Your task to perform on an android device: change keyboard looks Image 0: 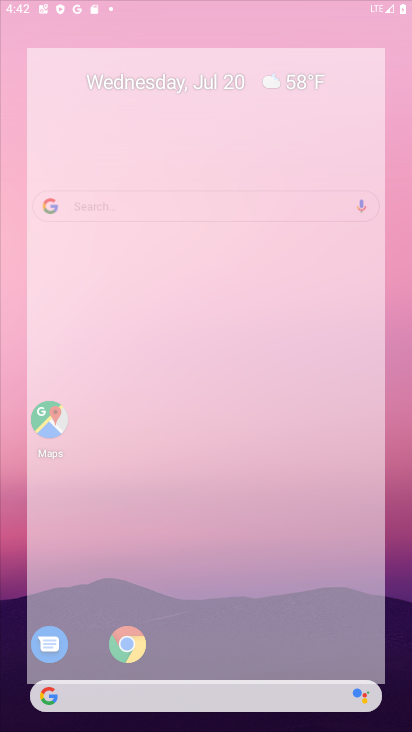
Step 0: press home button
Your task to perform on an android device: change keyboard looks Image 1: 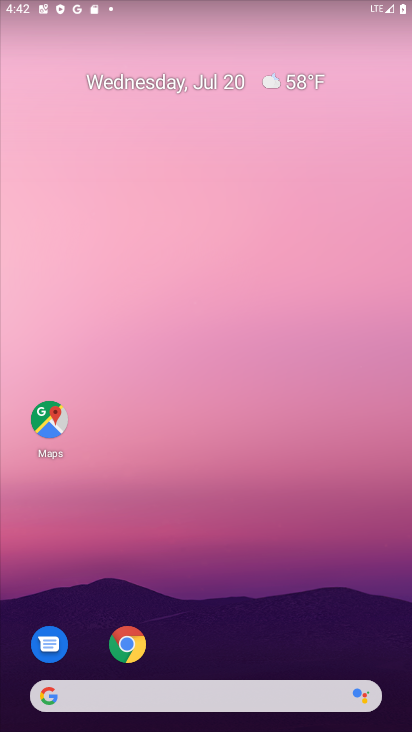
Step 1: drag from (203, 645) to (247, 13)
Your task to perform on an android device: change keyboard looks Image 2: 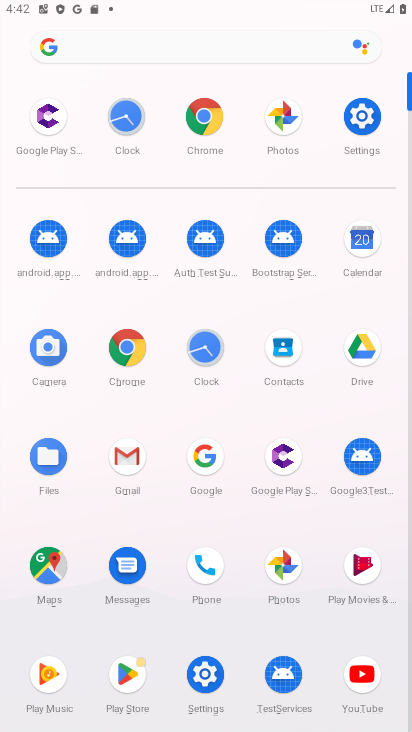
Step 2: click (358, 129)
Your task to perform on an android device: change keyboard looks Image 3: 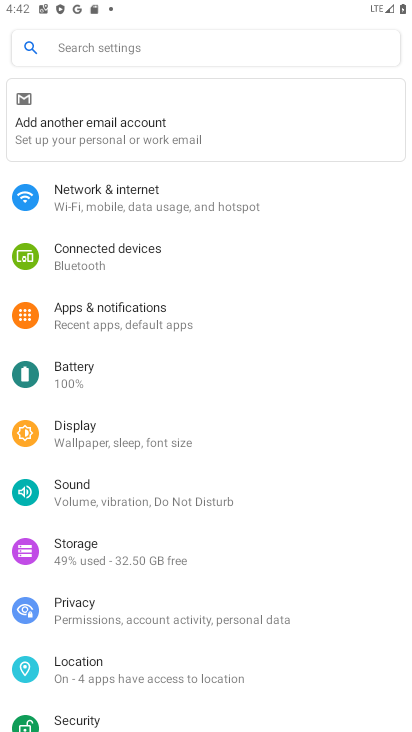
Step 3: drag from (289, 686) to (338, 139)
Your task to perform on an android device: change keyboard looks Image 4: 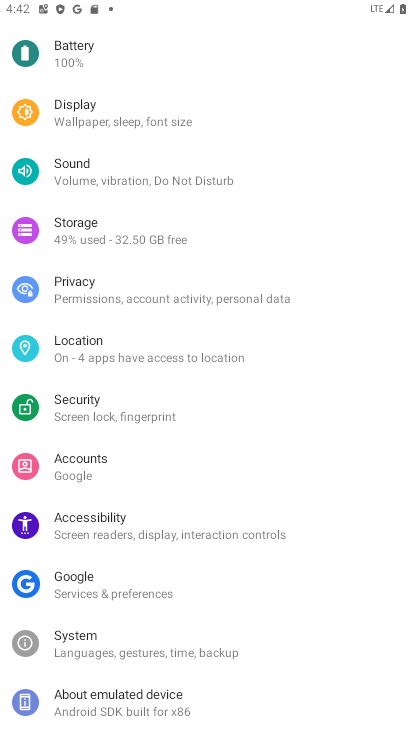
Step 4: click (94, 649)
Your task to perform on an android device: change keyboard looks Image 5: 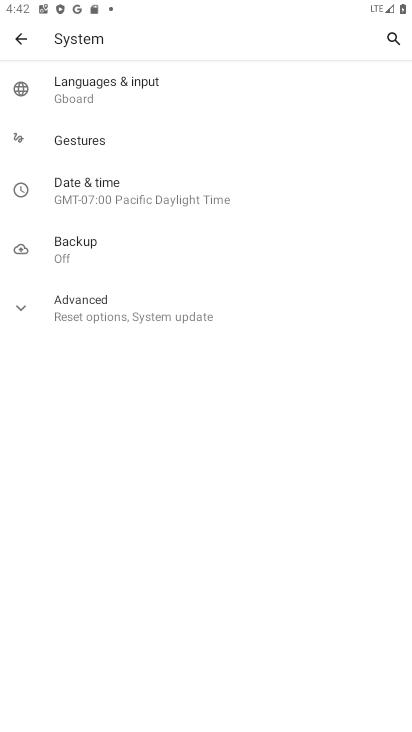
Step 5: click (78, 87)
Your task to perform on an android device: change keyboard looks Image 6: 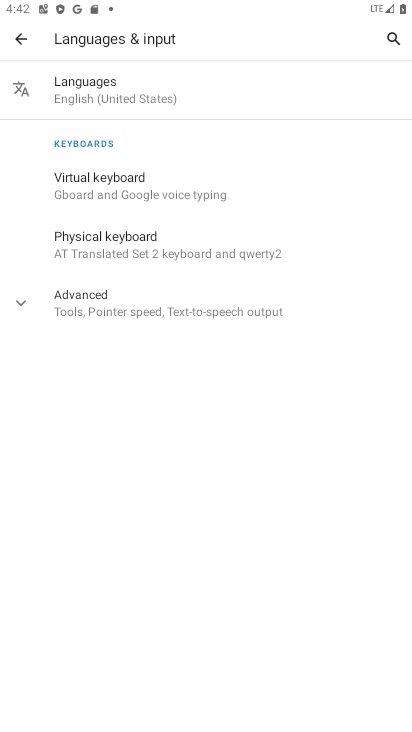
Step 6: click (102, 194)
Your task to perform on an android device: change keyboard looks Image 7: 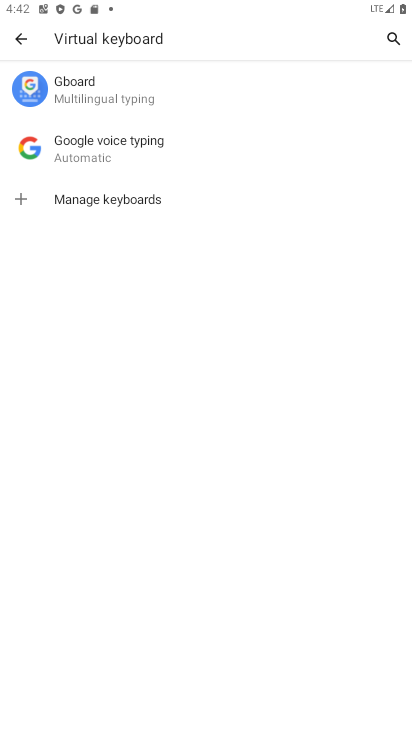
Step 7: click (73, 92)
Your task to perform on an android device: change keyboard looks Image 8: 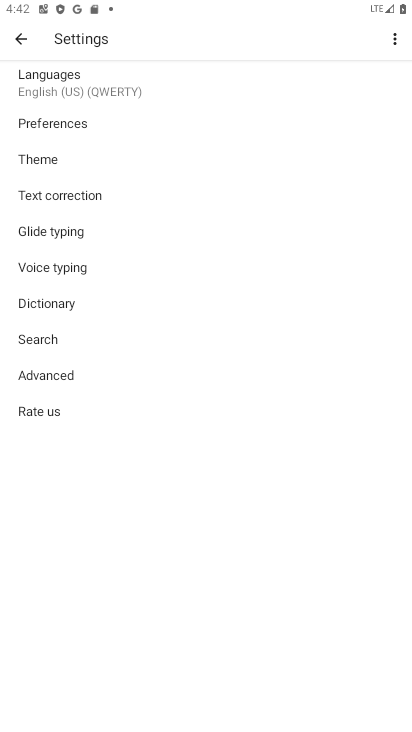
Step 8: click (40, 157)
Your task to perform on an android device: change keyboard looks Image 9: 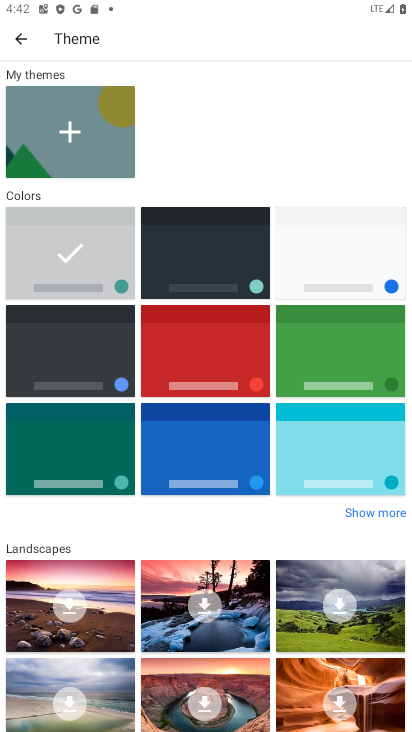
Step 9: click (183, 354)
Your task to perform on an android device: change keyboard looks Image 10: 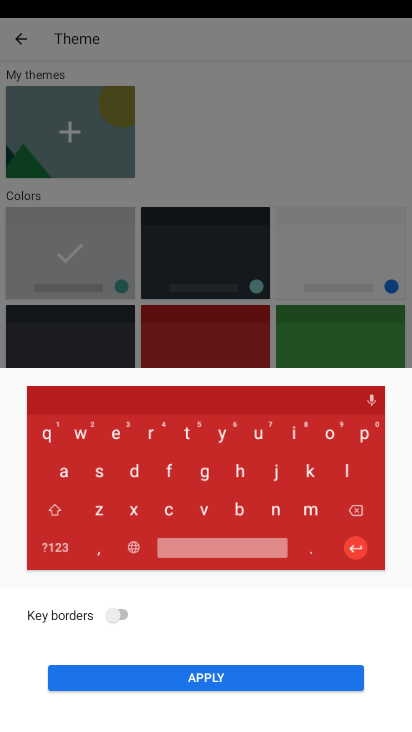
Step 10: click (139, 685)
Your task to perform on an android device: change keyboard looks Image 11: 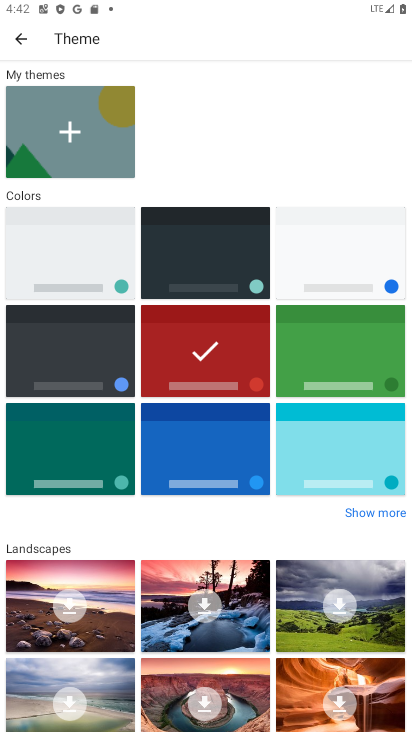
Step 11: task complete